Your task to perform on an android device: toggle wifi Image 0: 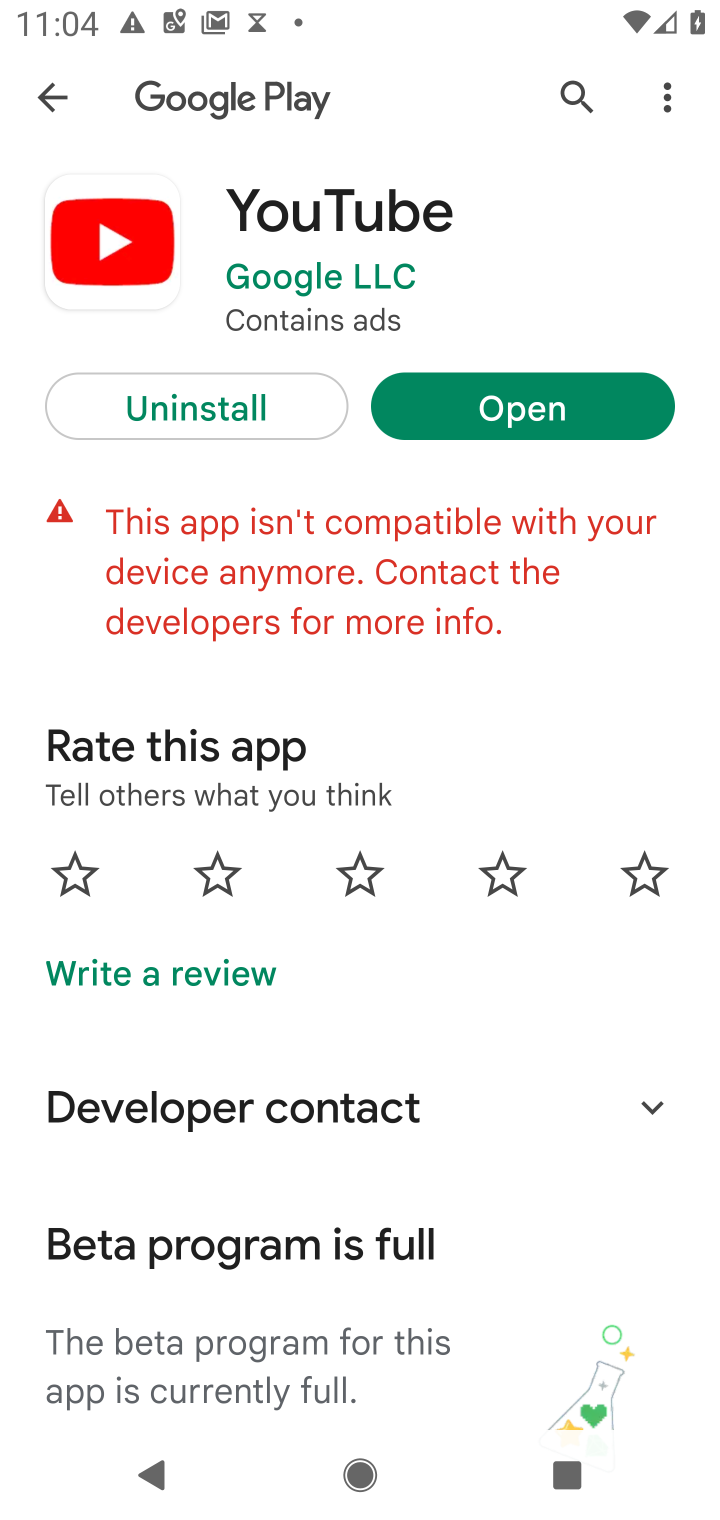
Step 0: press home button
Your task to perform on an android device: toggle wifi Image 1: 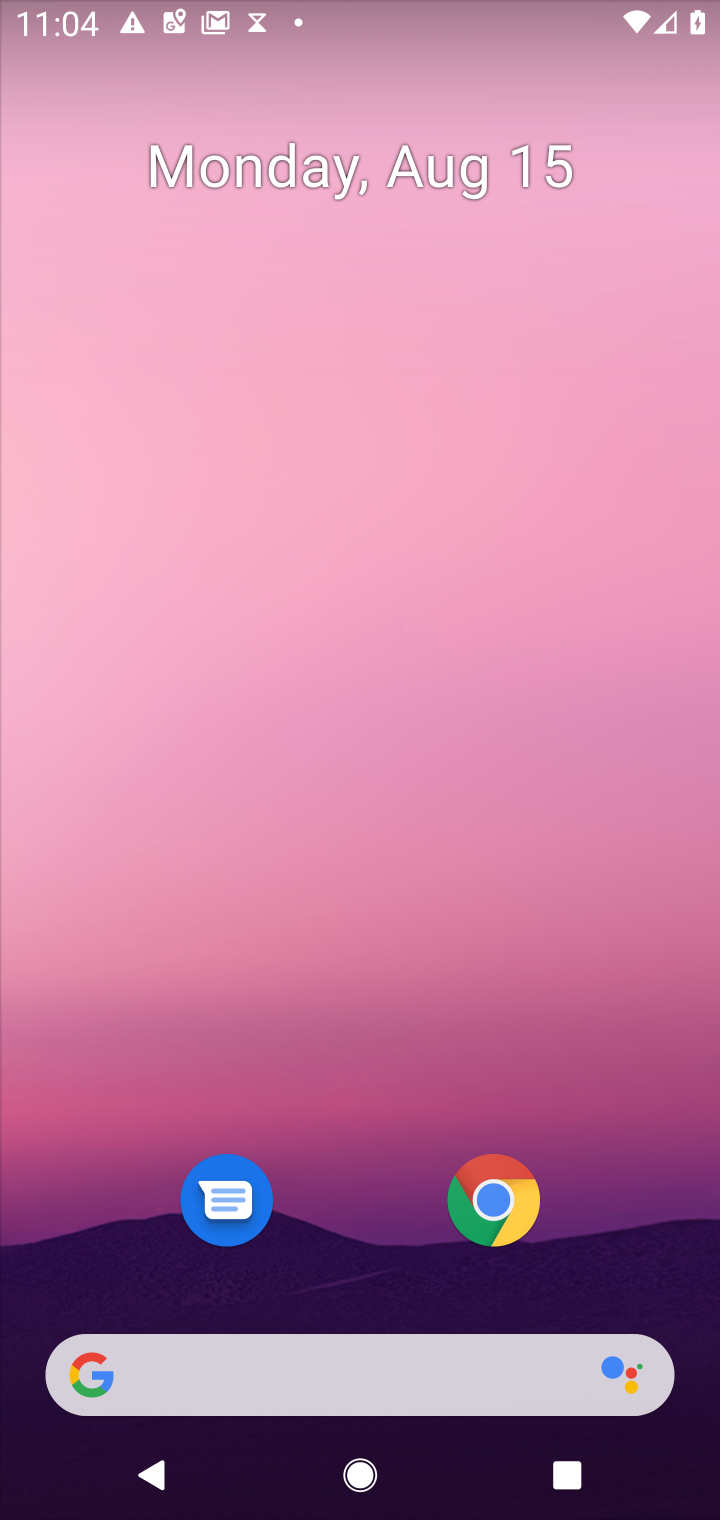
Step 1: drag from (395, 1226) to (353, 325)
Your task to perform on an android device: toggle wifi Image 2: 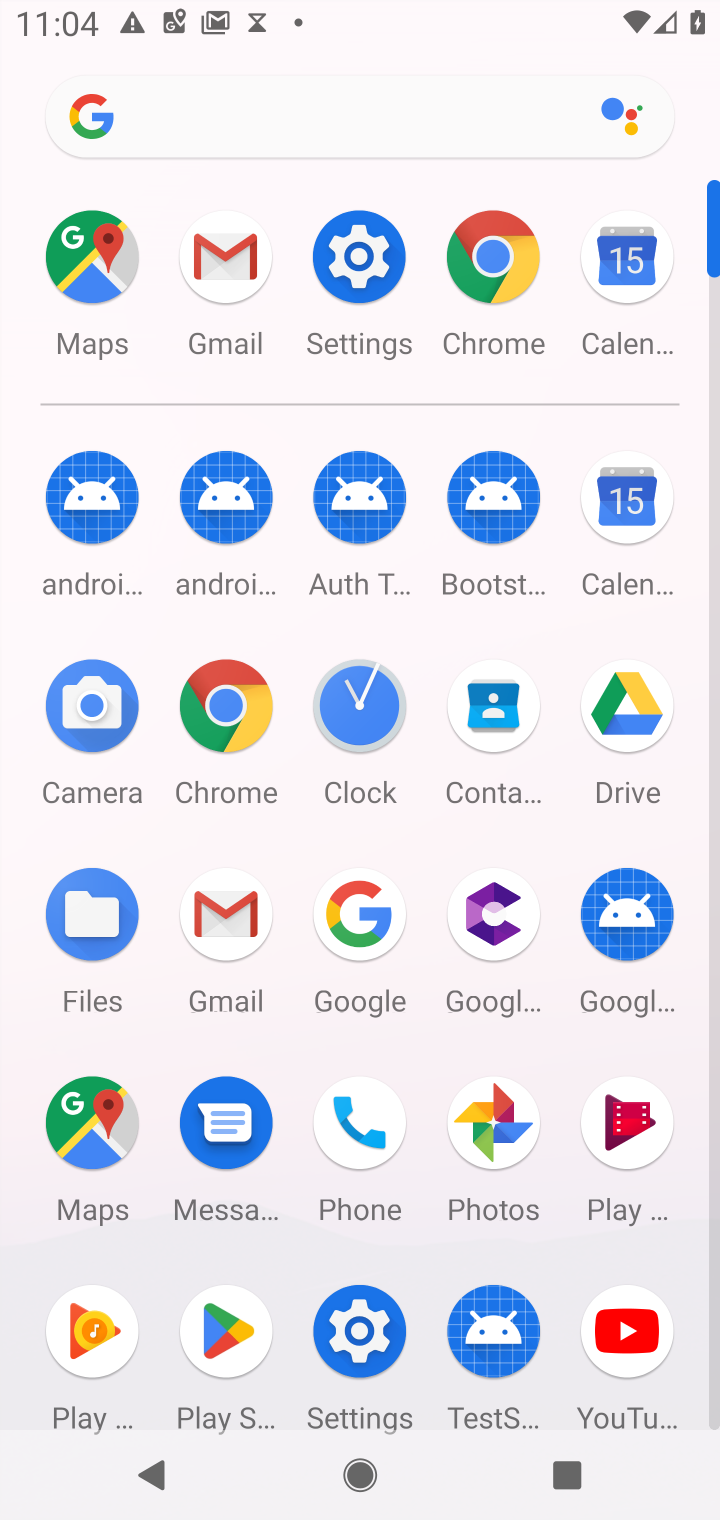
Step 2: click (365, 262)
Your task to perform on an android device: toggle wifi Image 3: 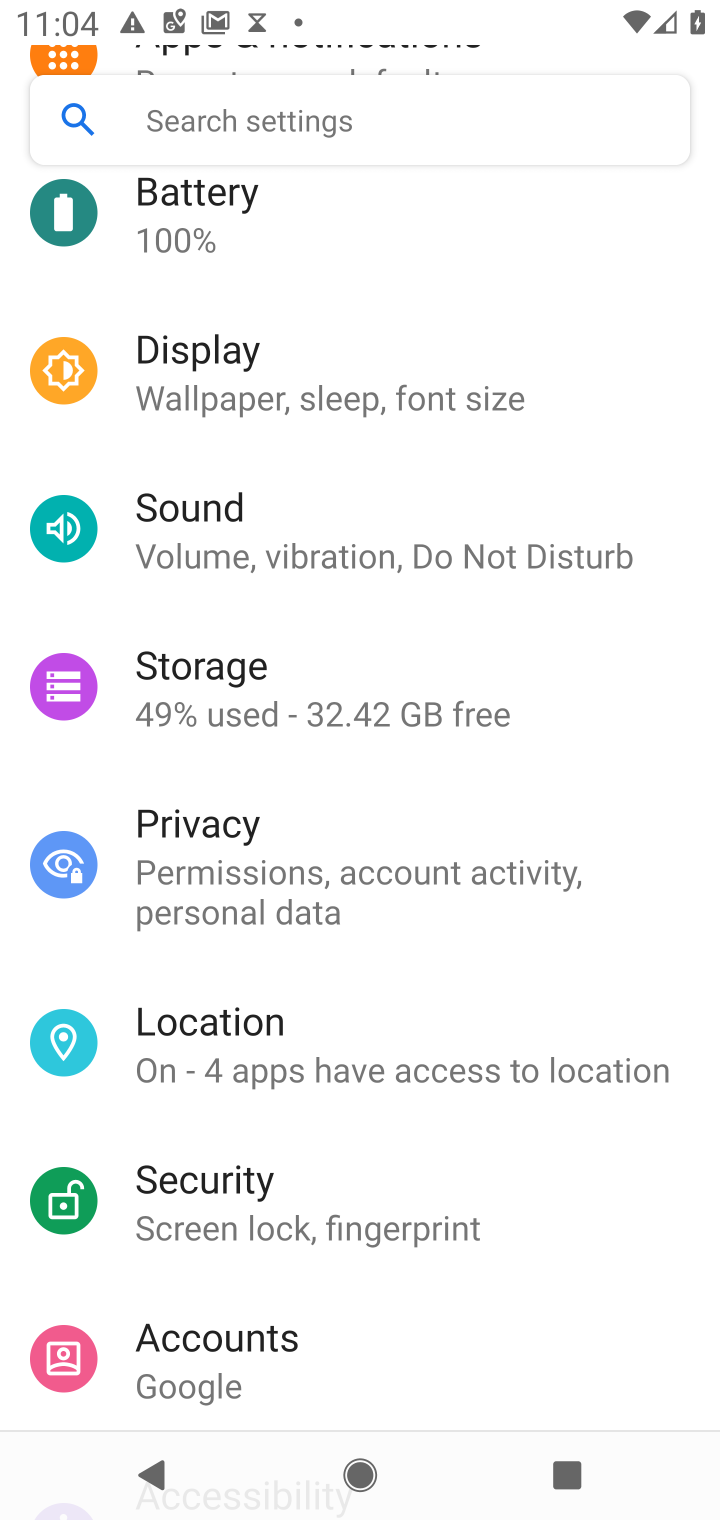
Step 3: drag from (365, 262) to (433, 1125)
Your task to perform on an android device: toggle wifi Image 4: 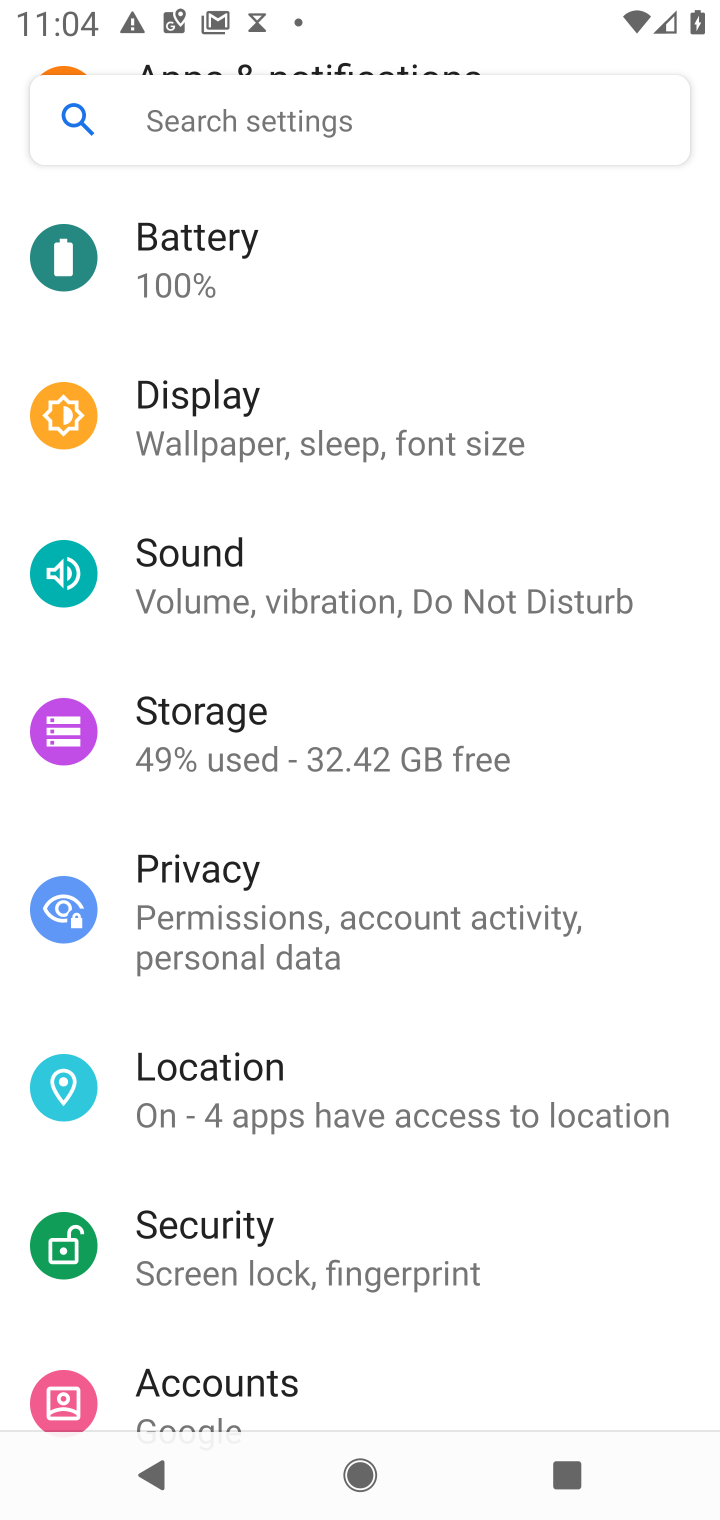
Step 4: drag from (335, 572) to (408, 1102)
Your task to perform on an android device: toggle wifi Image 5: 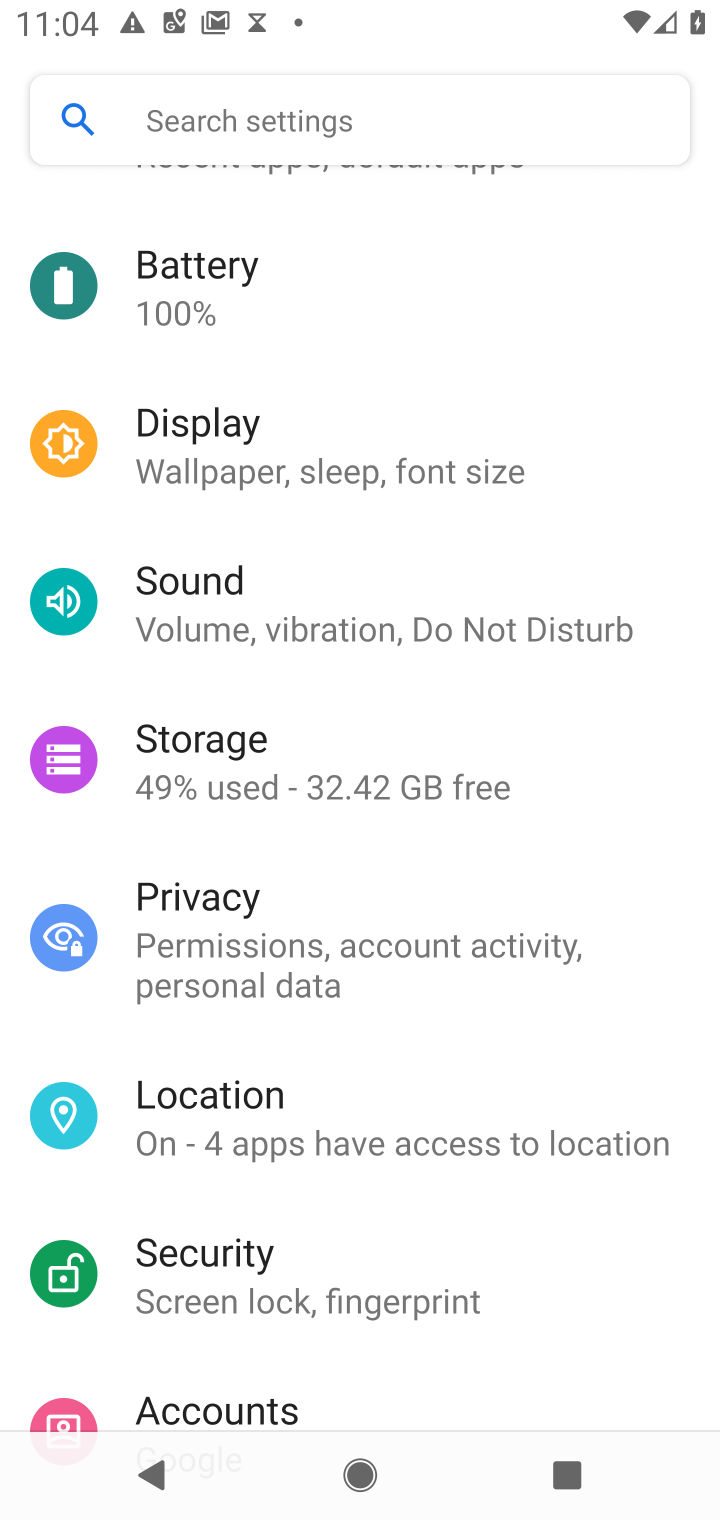
Step 5: drag from (423, 639) to (448, 1214)
Your task to perform on an android device: toggle wifi Image 6: 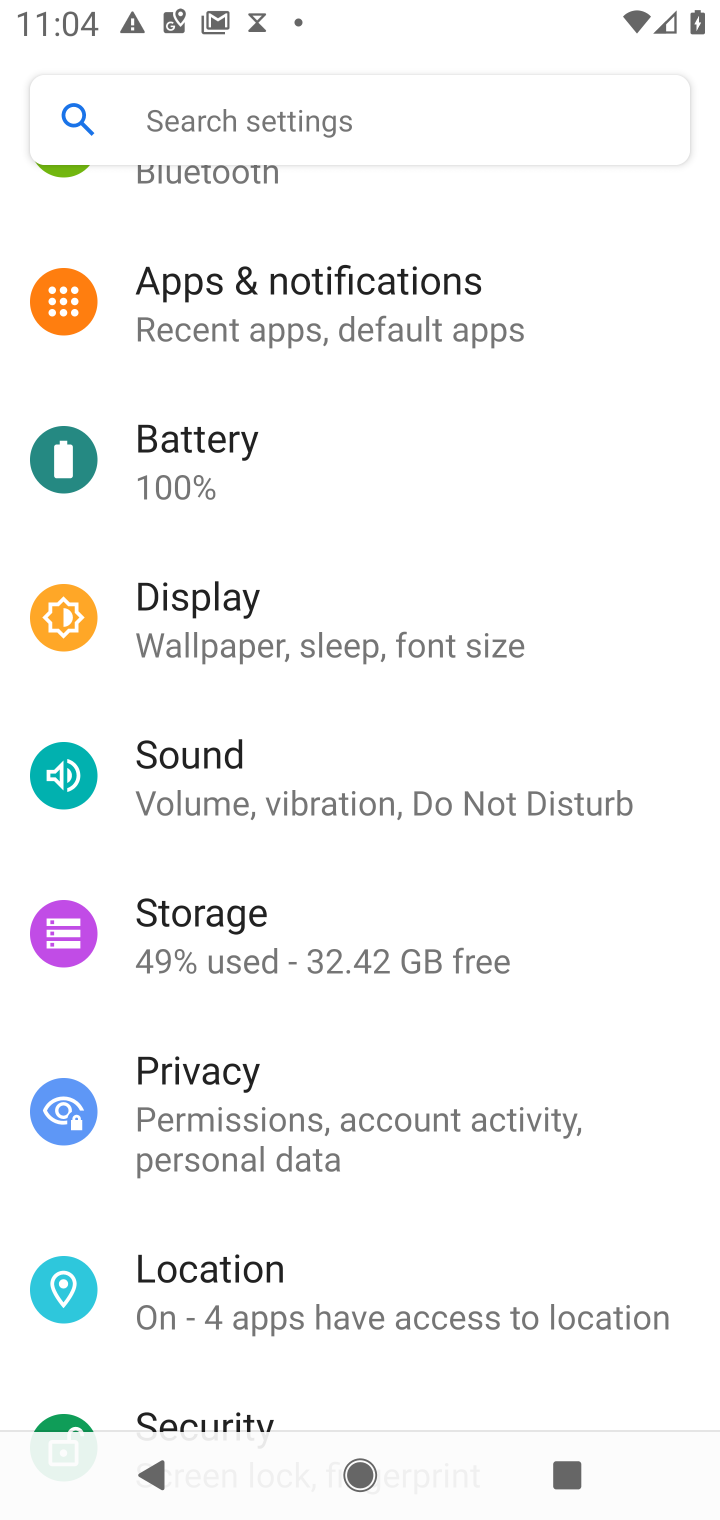
Step 6: drag from (318, 381) to (405, 1235)
Your task to perform on an android device: toggle wifi Image 7: 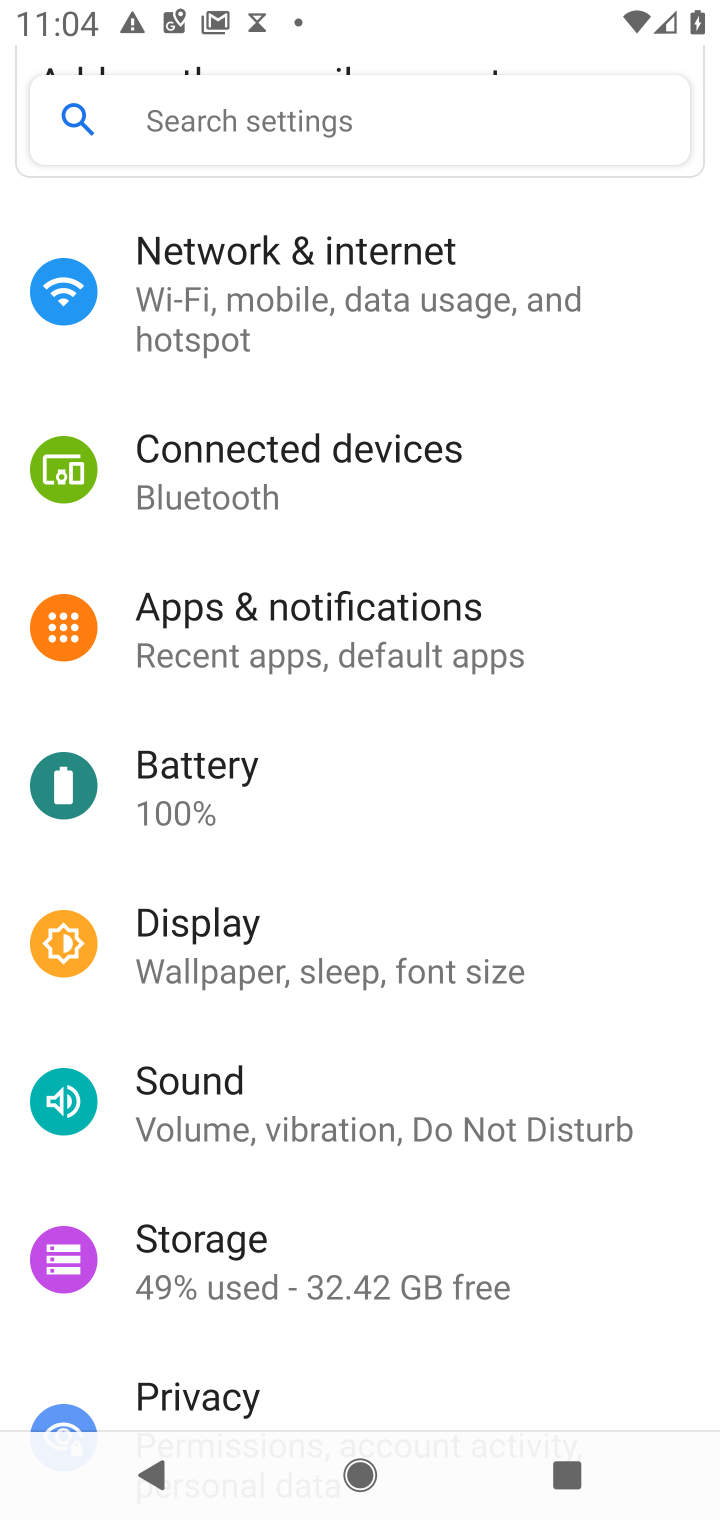
Step 7: click (326, 243)
Your task to perform on an android device: toggle wifi Image 8: 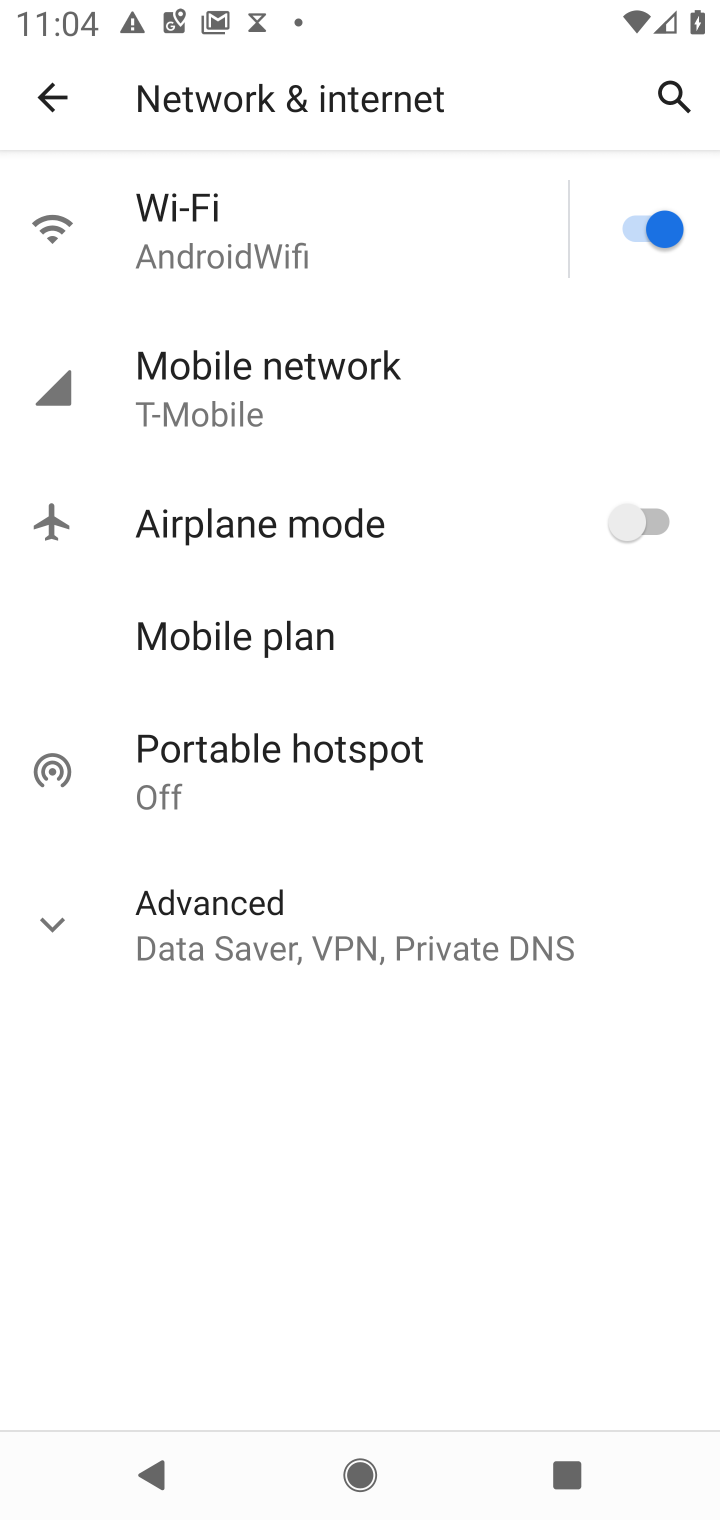
Step 8: click (631, 214)
Your task to perform on an android device: toggle wifi Image 9: 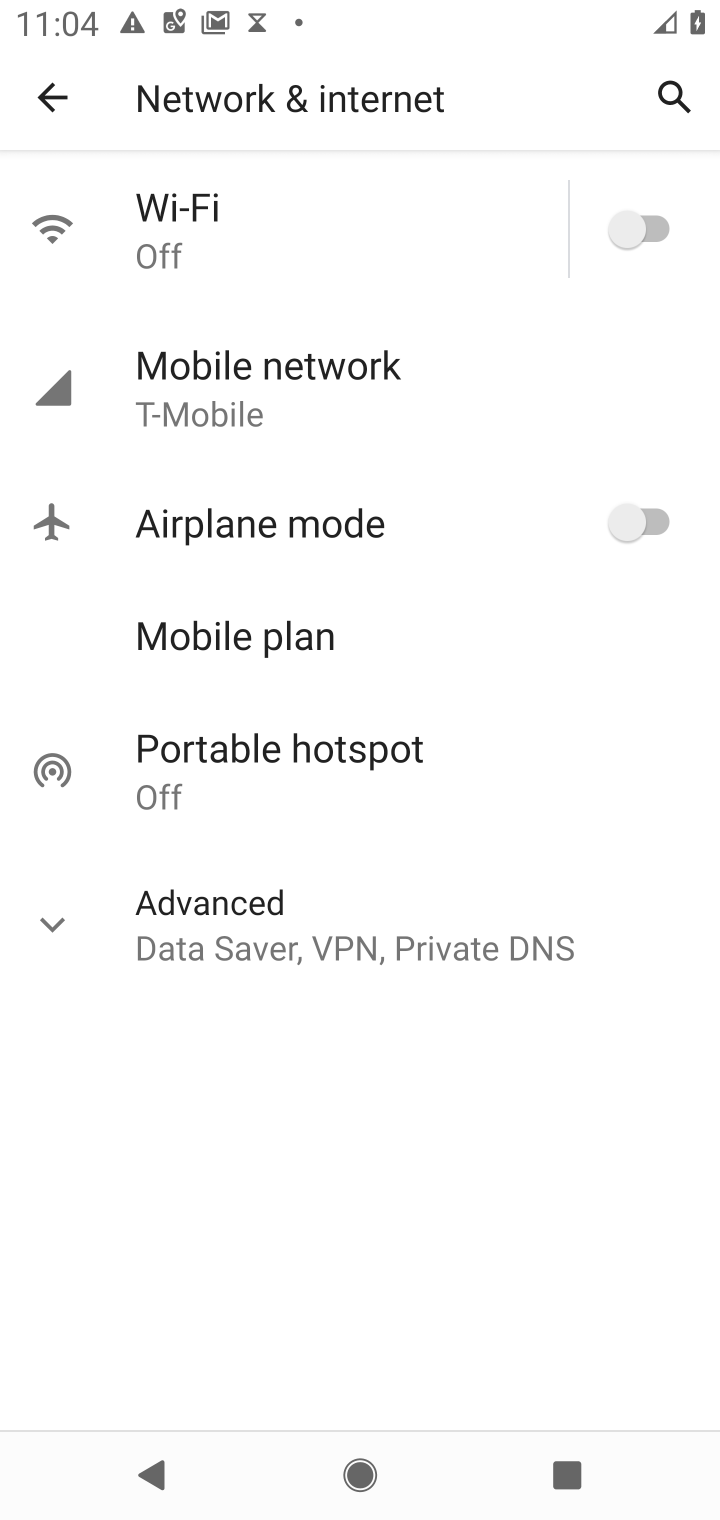
Step 9: task complete